Your task to perform on an android device: Show me popular videos on Youtube Image 0: 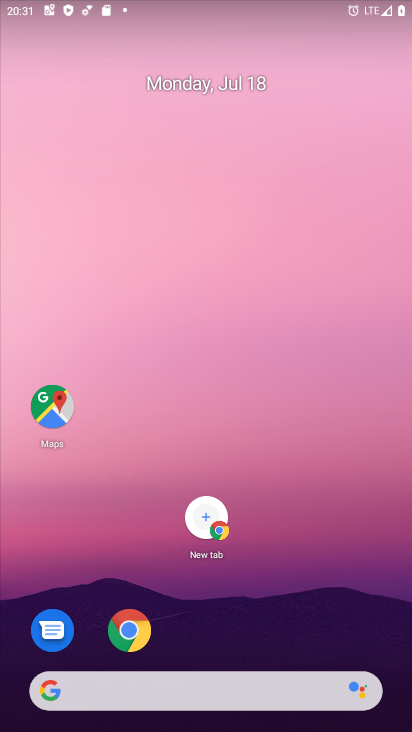
Step 0: drag from (222, 663) to (372, 193)
Your task to perform on an android device: Show me popular videos on Youtube Image 1: 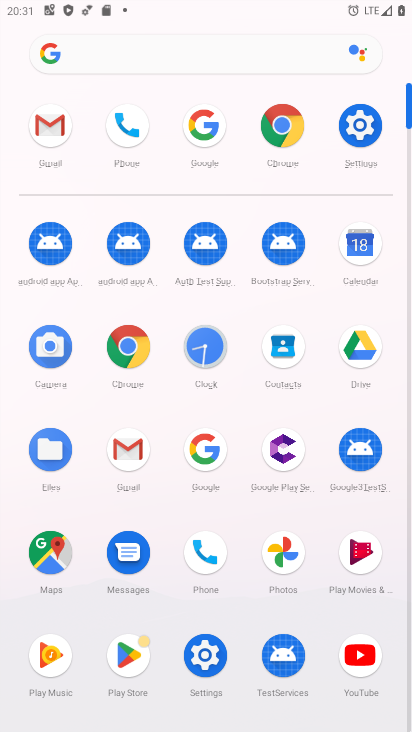
Step 1: click (360, 667)
Your task to perform on an android device: Show me popular videos on Youtube Image 2: 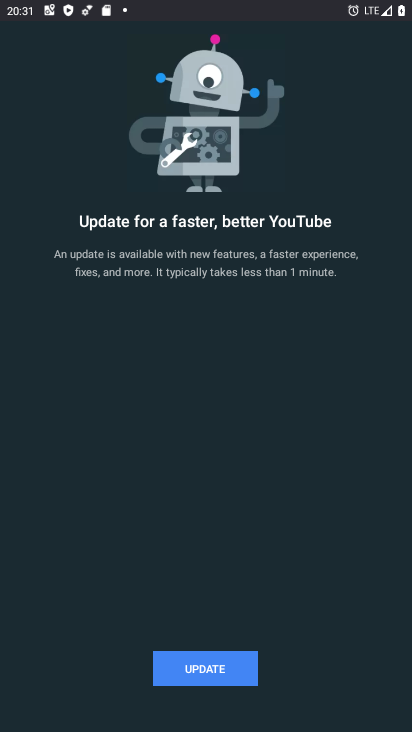
Step 2: click (218, 672)
Your task to perform on an android device: Show me popular videos on Youtube Image 3: 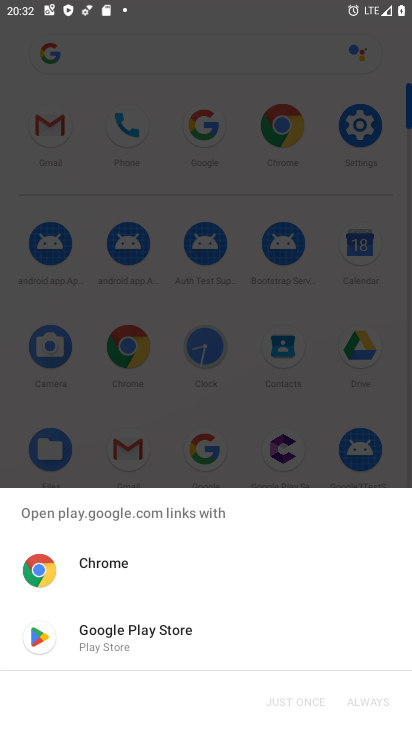
Step 3: click (120, 636)
Your task to perform on an android device: Show me popular videos on Youtube Image 4: 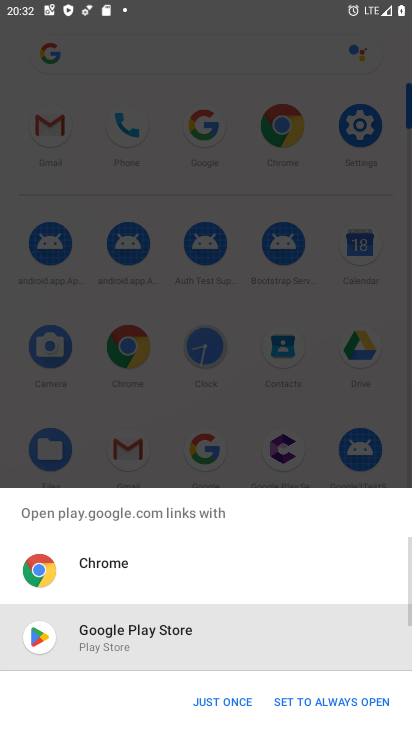
Step 4: click (213, 702)
Your task to perform on an android device: Show me popular videos on Youtube Image 5: 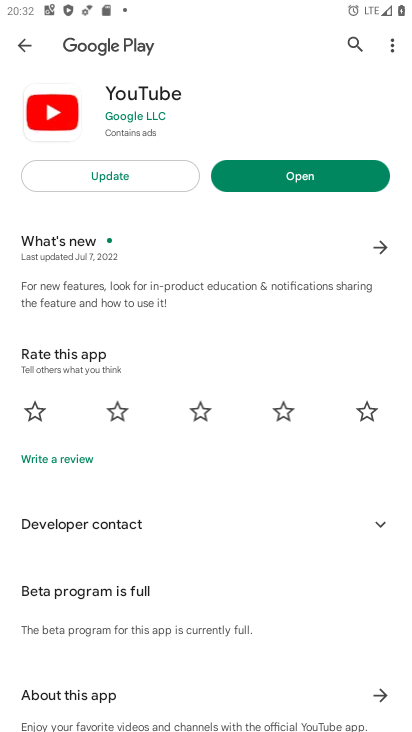
Step 5: click (147, 171)
Your task to perform on an android device: Show me popular videos on Youtube Image 6: 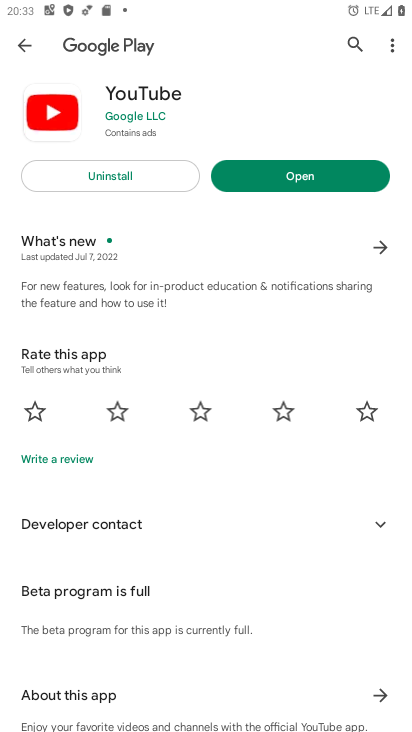
Step 6: click (271, 172)
Your task to perform on an android device: Show me popular videos on Youtube Image 7: 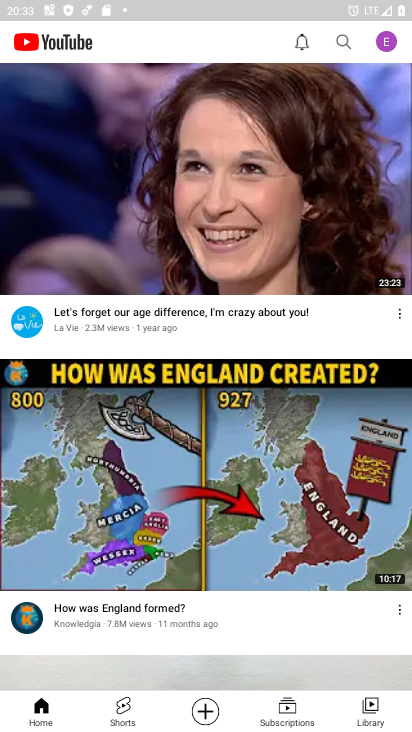
Step 7: task complete